Your task to perform on an android device: Open CNN.com Image 0: 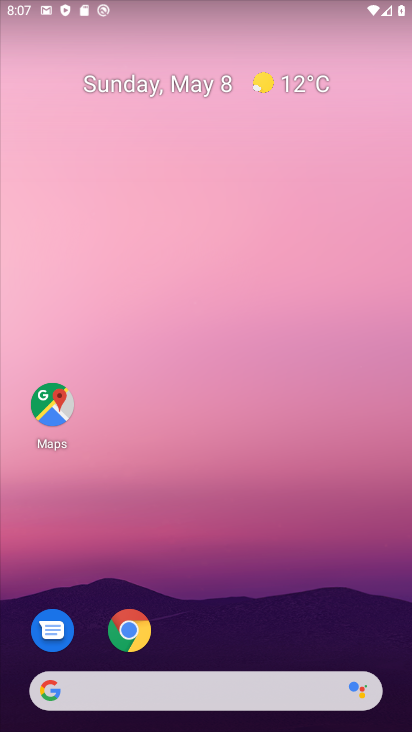
Step 0: click (134, 632)
Your task to perform on an android device: Open CNN.com Image 1: 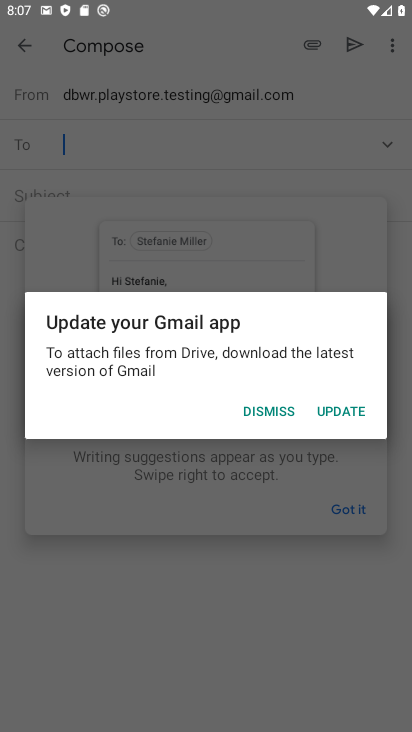
Step 1: press home button
Your task to perform on an android device: Open CNN.com Image 2: 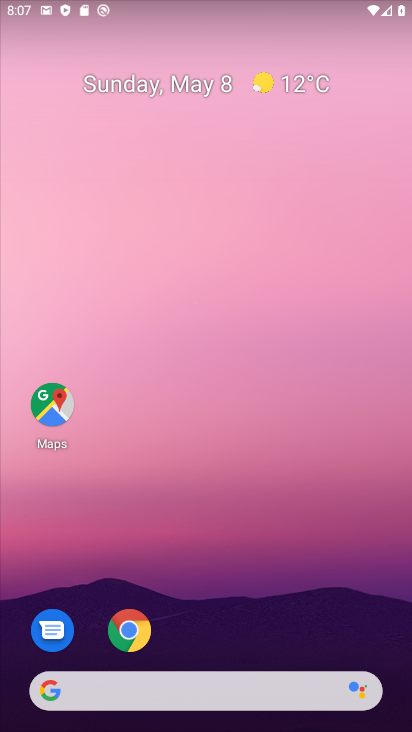
Step 2: click (125, 628)
Your task to perform on an android device: Open CNN.com Image 3: 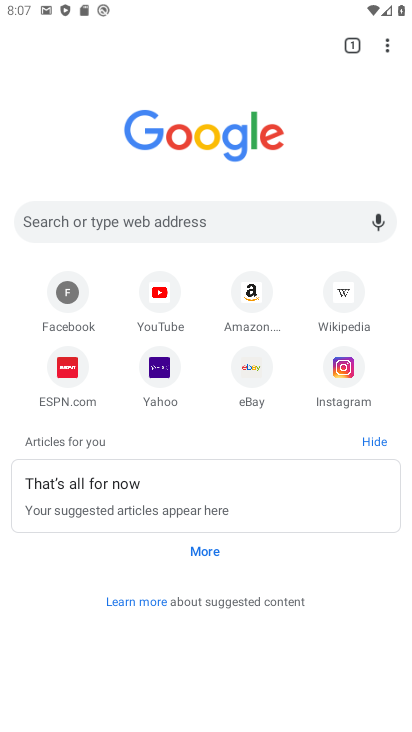
Step 3: click (261, 227)
Your task to perform on an android device: Open CNN.com Image 4: 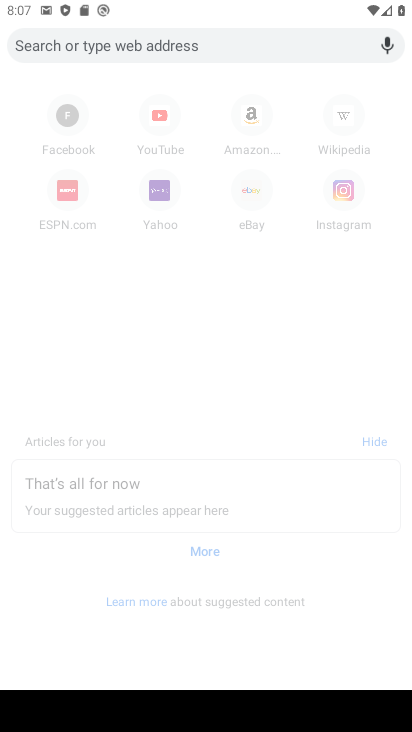
Step 4: type "CNN.com"
Your task to perform on an android device: Open CNN.com Image 5: 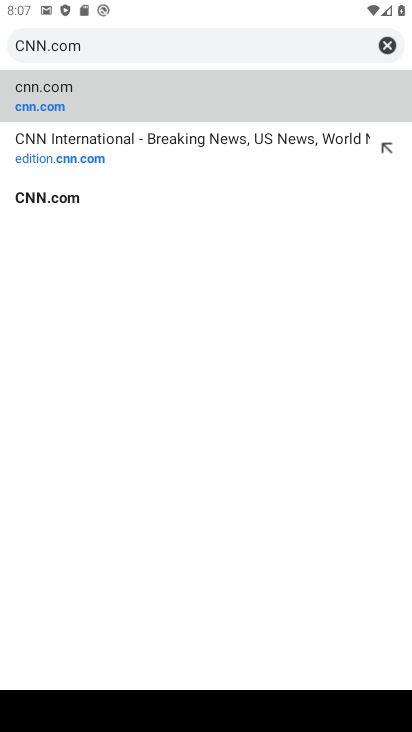
Step 5: click (95, 102)
Your task to perform on an android device: Open CNN.com Image 6: 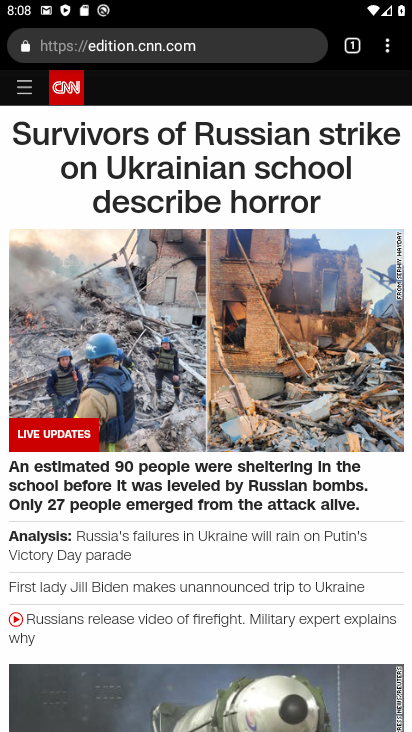
Step 6: task complete